Your task to perform on an android device: find which apps use the phone's location Image 0: 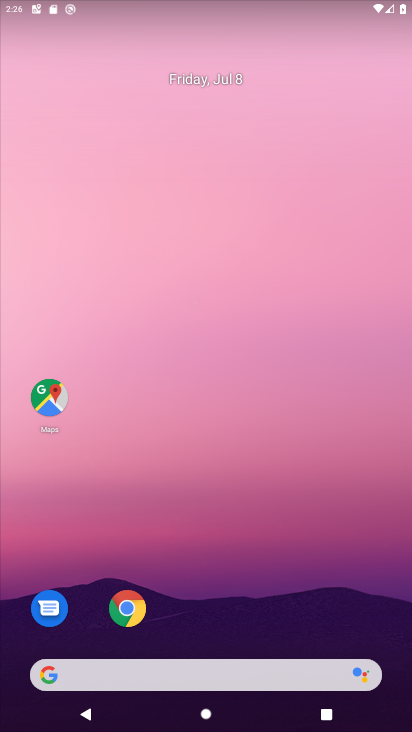
Step 0: drag from (253, 555) to (253, 467)
Your task to perform on an android device: find which apps use the phone's location Image 1: 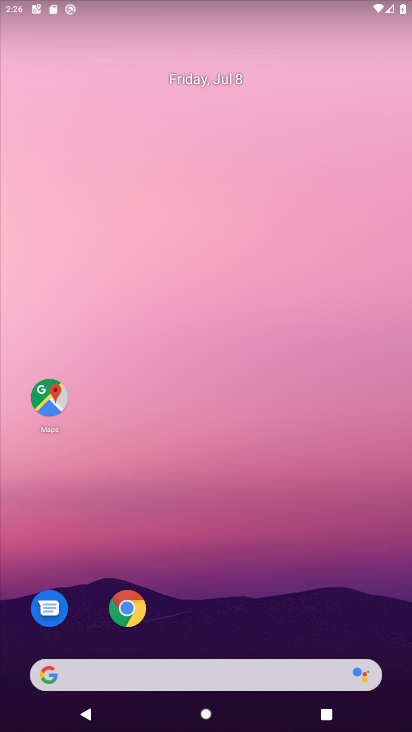
Step 1: drag from (199, 554) to (207, 223)
Your task to perform on an android device: find which apps use the phone's location Image 2: 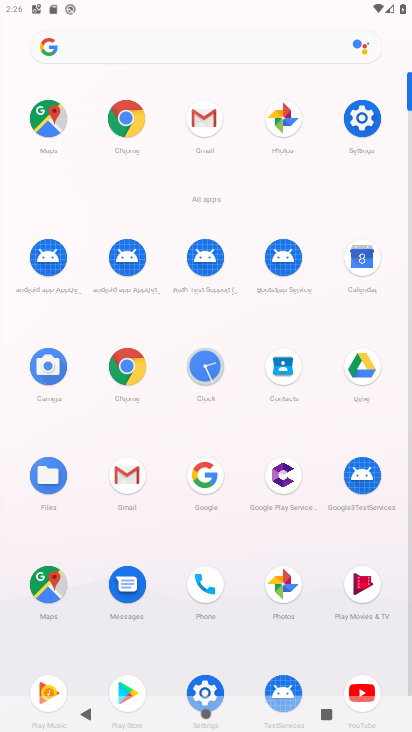
Step 2: click (352, 115)
Your task to perform on an android device: find which apps use the phone's location Image 3: 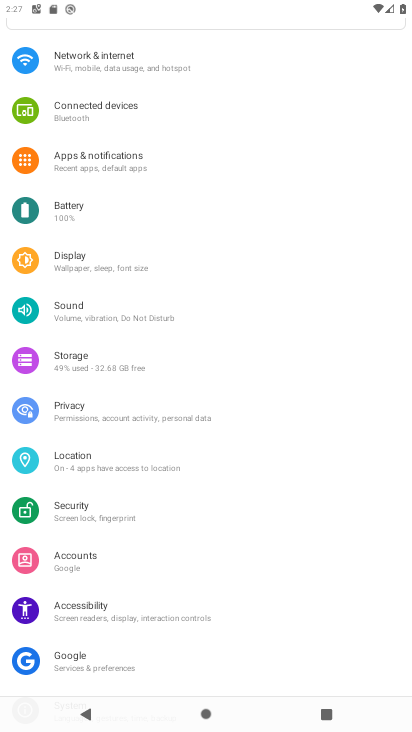
Step 3: click (117, 464)
Your task to perform on an android device: find which apps use the phone's location Image 4: 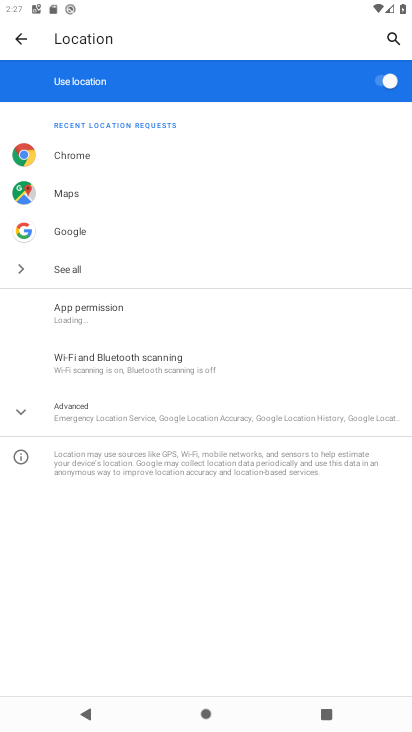
Step 4: task complete